Your task to perform on an android device: allow notifications from all sites in the chrome app Image 0: 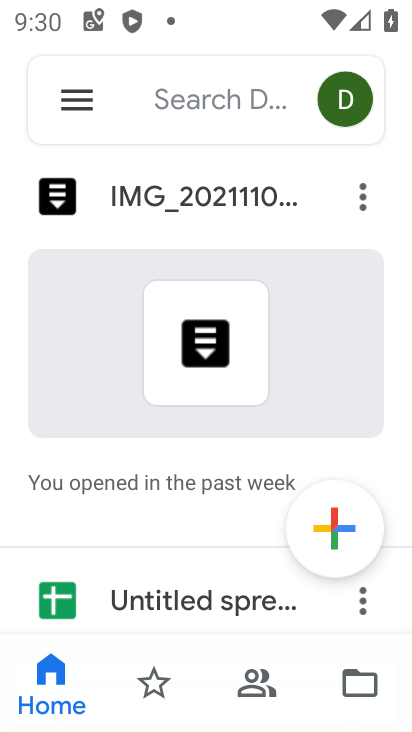
Step 0: press home button
Your task to perform on an android device: allow notifications from all sites in the chrome app Image 1: 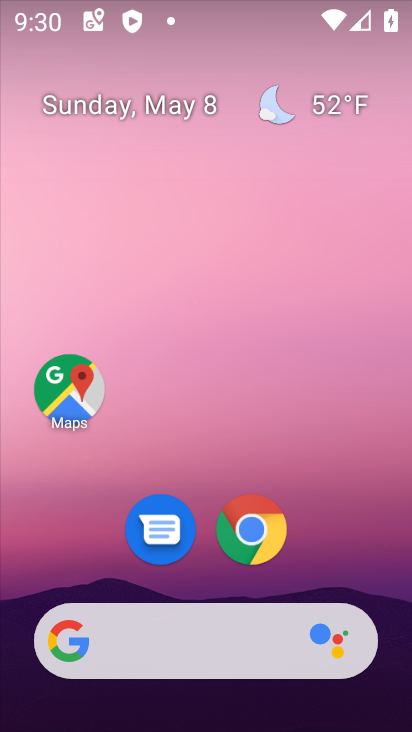
Step 1: drag from (366, 561) to (350, 155)
Your task to perform on an android device: allow notifications from all sites in the chrome app Image 2: 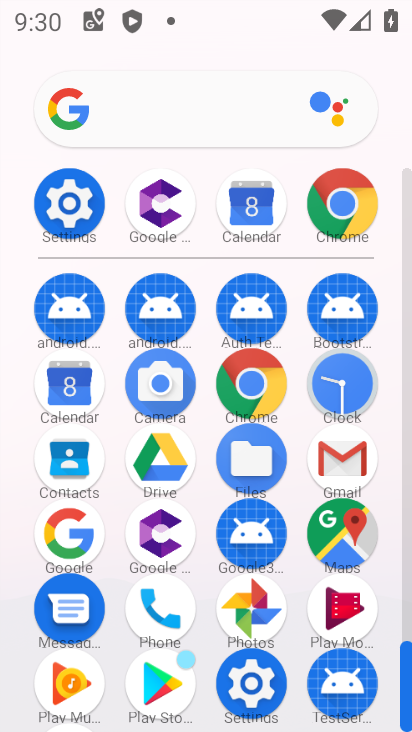
Step 2: click (248, 371)
Your task to perform on an android device: allow notifications from all sites in the chrome app Image 3: 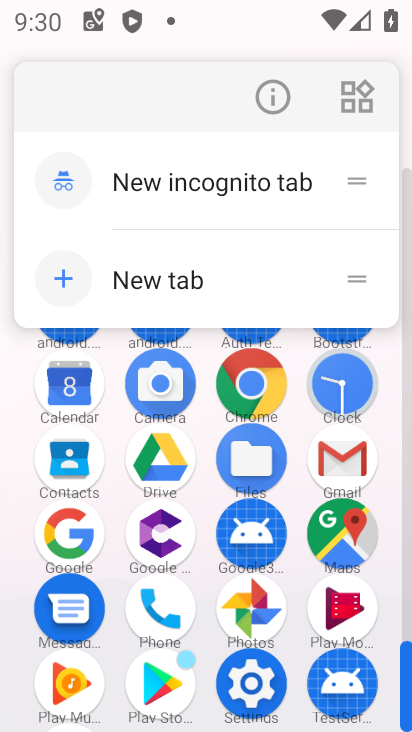
Step 3: click (249, 382)
Your task to perform on an android device: allow notifications from all sites in the chrome app Image 4: 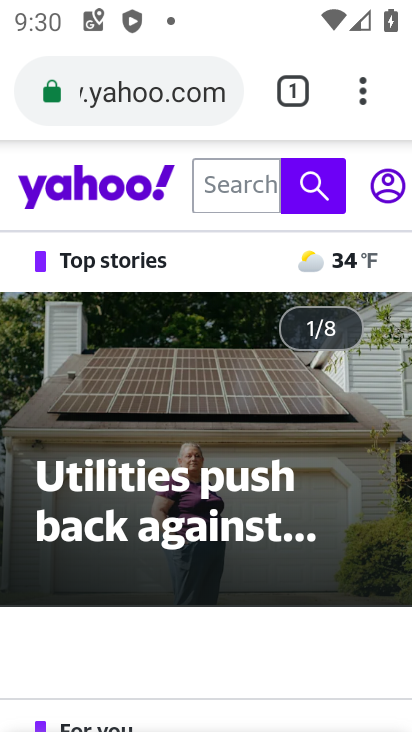
Step 4: click (199, 95)
Your task to perform on an android device: allow notifications from all sites in the chrome app Image 5: 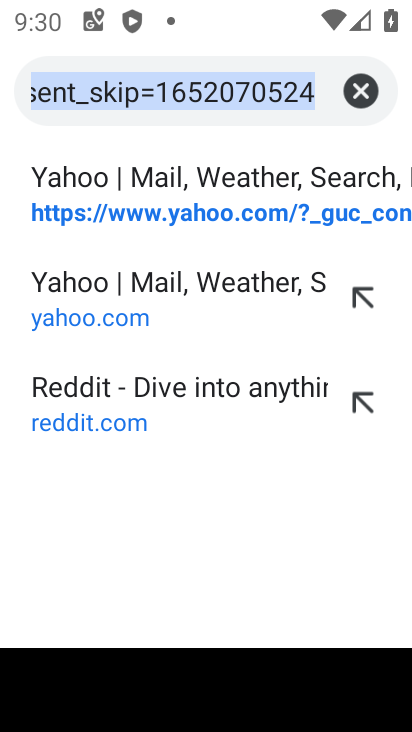
Step 5: click (370, 107)
Your task to perform on an android device: allow notifications from all sites in the chrome app Image 6: 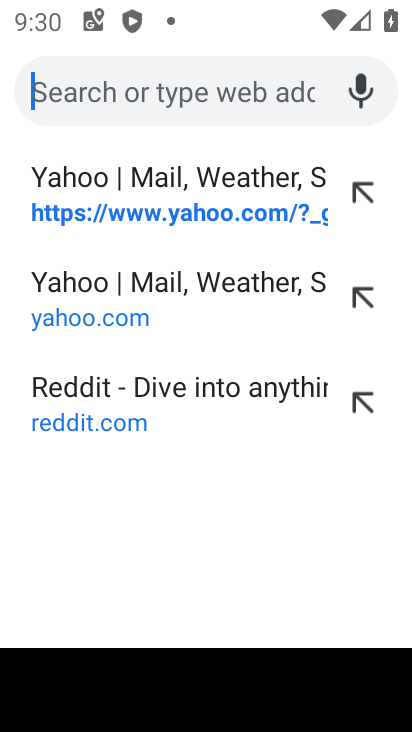
Step 6: press back button
Your task to perform on an android device: allow notifications from all sites in the chrome app Image 7: 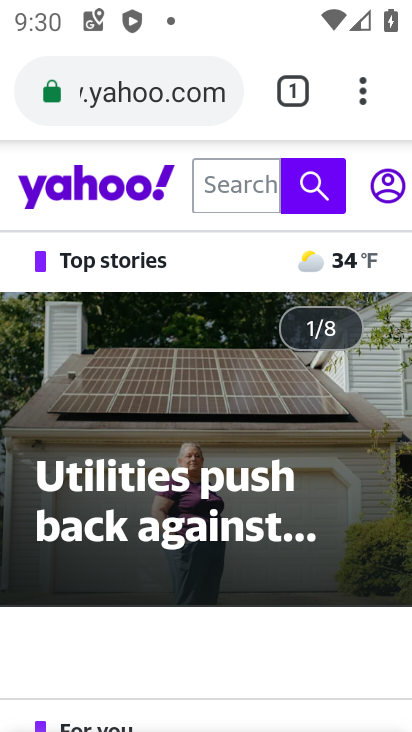
Step 7: drag from (364, 94) to (92, 557)
Your task to perform on an android device: allow notifications from all sites in the chrome app Image 8: 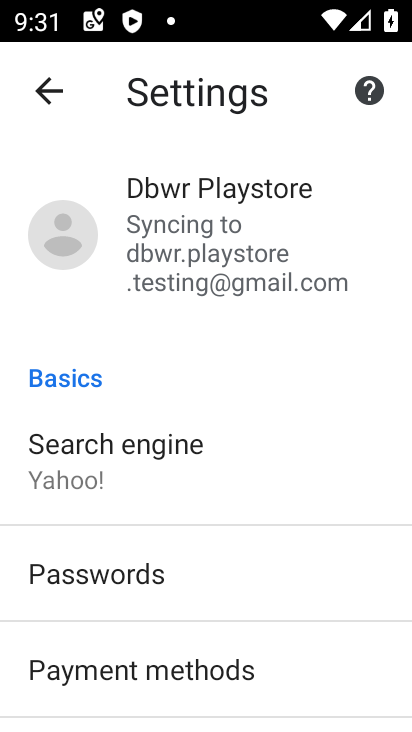
Step 8: drag from (347, 596) to (359, 225)
Your task to perform on an android device: allow notifications from all sites in the chrome app Image 9: 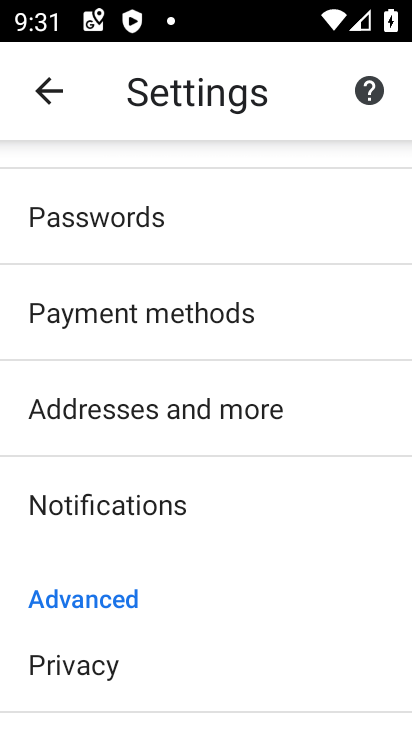
Step 9: drag from (337, 608) to (320, 294)
Your task to perform on an android device: allow notifications from all sites in the chrome app Image 10: 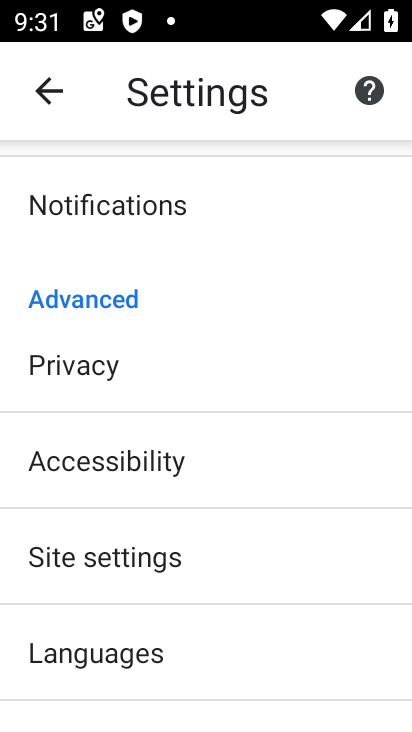
Step 10: click (215, 554)
Your task to perform on an android device: allow notifications from all sites in the chrome app Image 11: 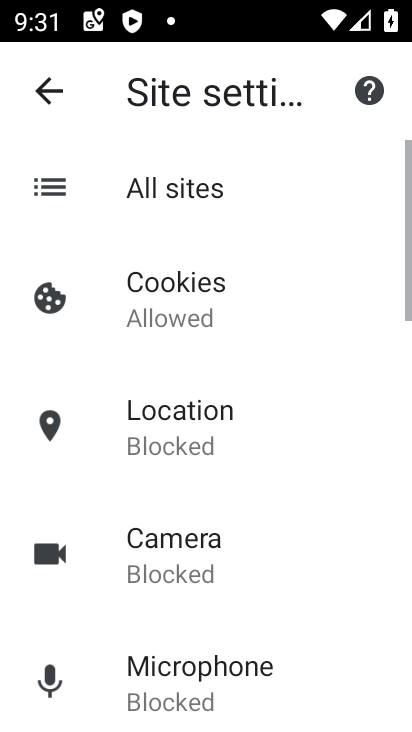
Step 11: click (194, 207)
Your task to perform on an android device: allow notifications from all sites in the chrome app Image 12: 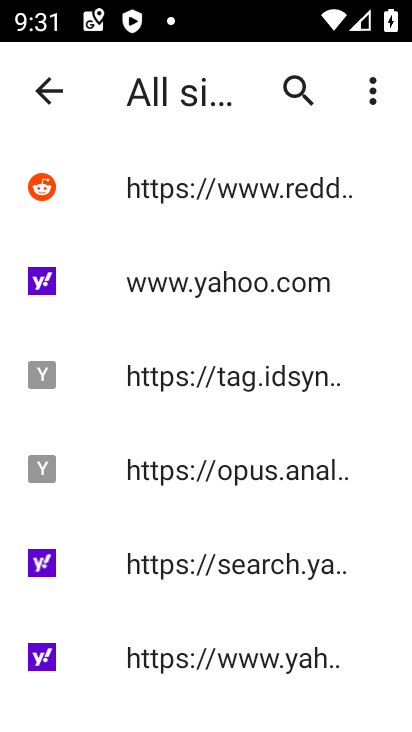
Step 12: click (194, 207)
Your task to perform on an android device: allow notifications from all sites in the chrome app Image 13: 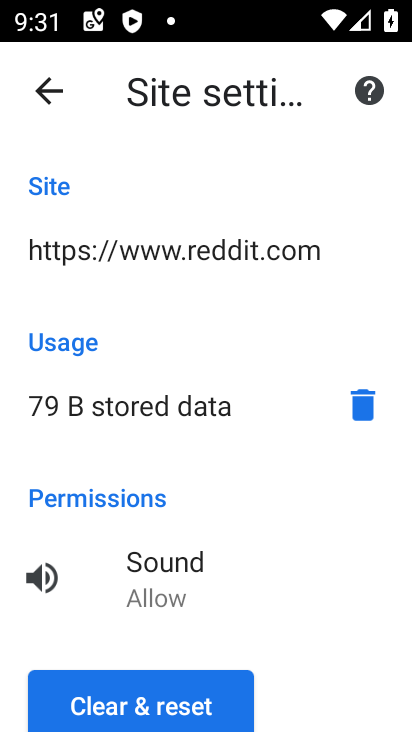
Step 13: task complete